Your task to perform on an android device: Open network settings Image 0: 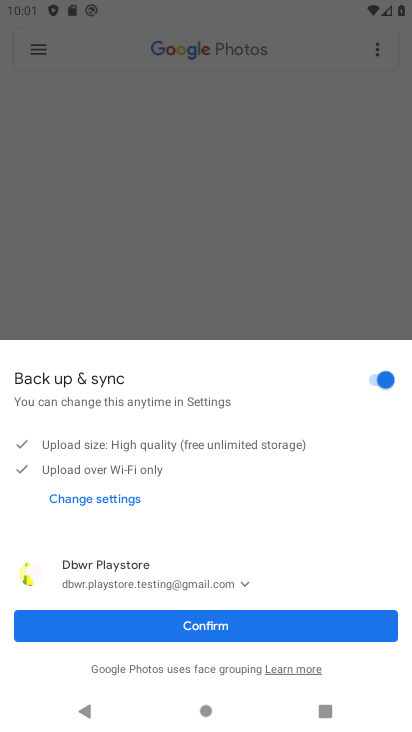
Step 0: press home button
Your task to perform on an android device: Open network settings Image 1: 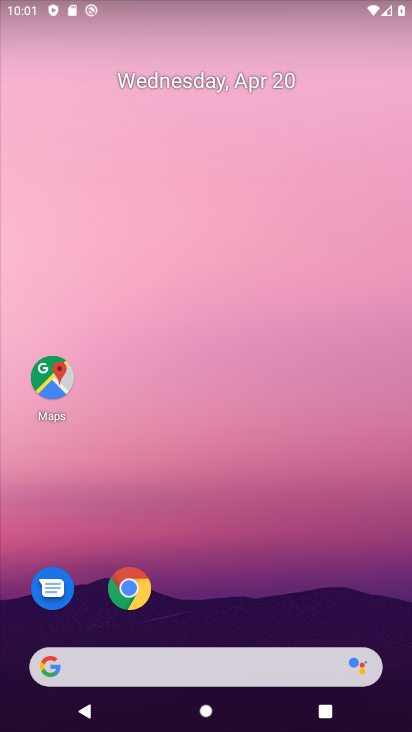
Step 1: drag from (224, 676) to (179, 408)
Your task to perform on an android device: Open network settings Image 2: 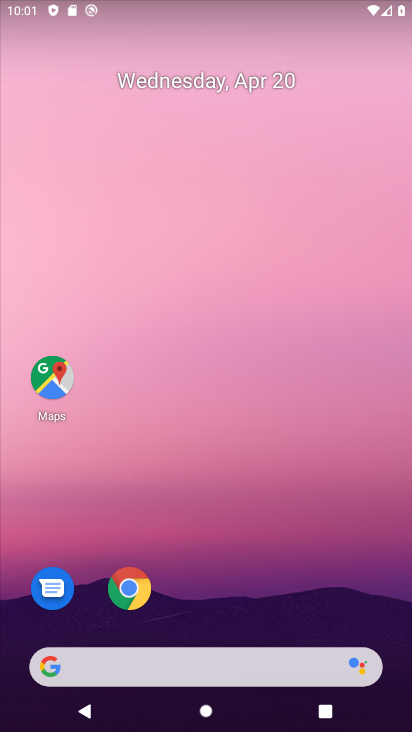
Step 2: drag from (222, 682) to (141, 399)
Your task to perform on an android device: Open network settings Image 3: 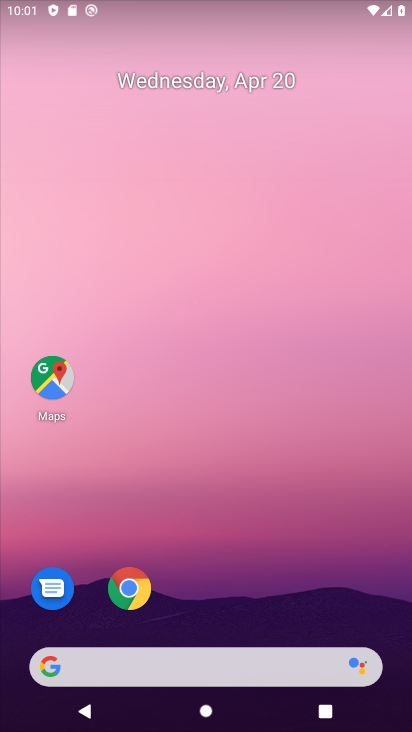
Step 3: drag from (216, 574) to (152, 327)
Your task to perform on an android device: Open network settings Image 4: 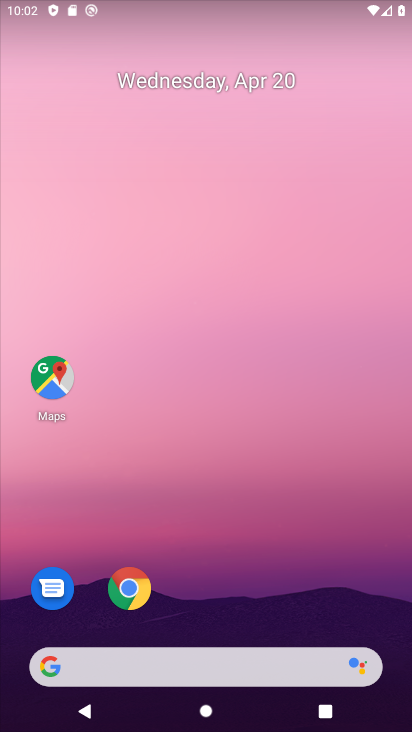
Step 4: drag from (294, 703) to (240, 211)
Your task to perform on an android device: Open network settings Image 5: 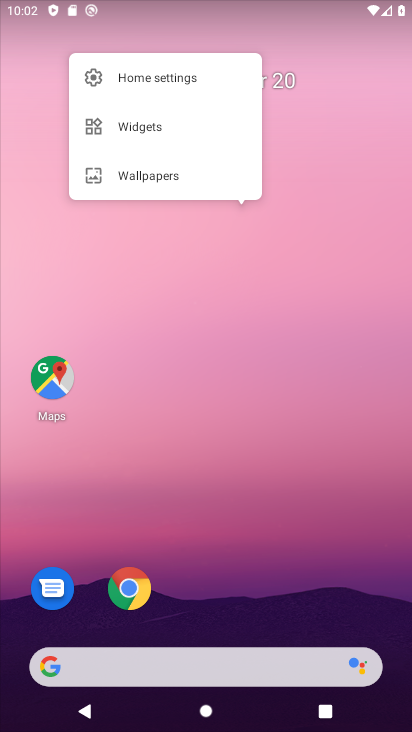
Step 5: drag from (275, 685) to (200, 170)
Your task to perform on an android device: Open network settings Image 6: 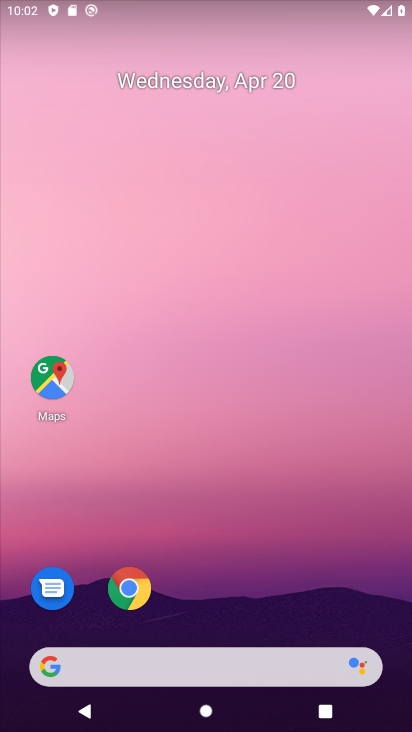
Step 6: drag from (238, 641) to (163, 49)
Your task to perform on an android device: Open network settings Image 7: 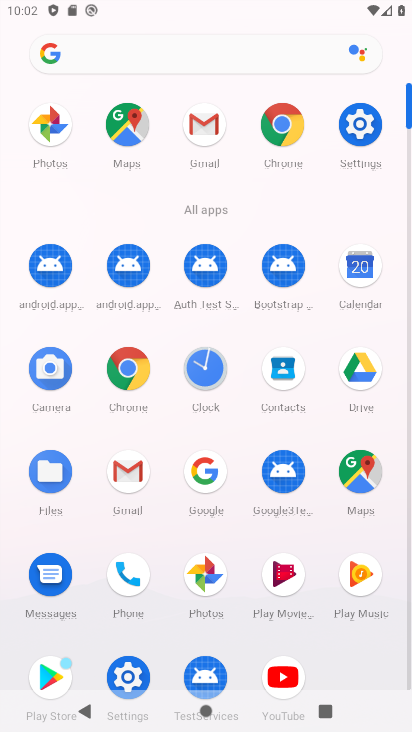
Step 7: click (129, 679)
Your task to perform on an android device: Open network settings Image 8: 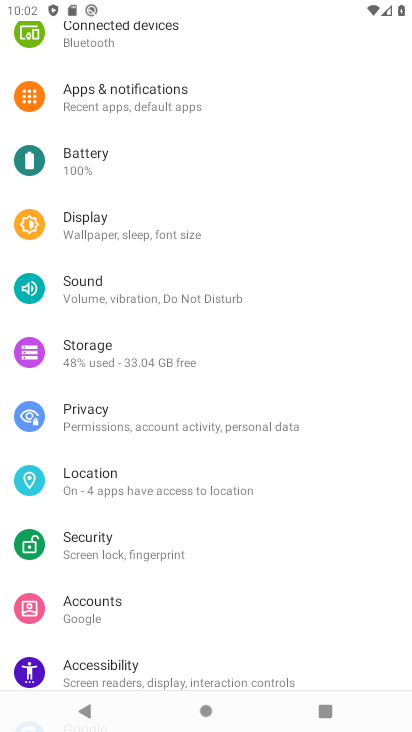
Step 8: drag from (146, 98) to (170, 368)
Your task to perform on an android device: Open network settings Image 9: 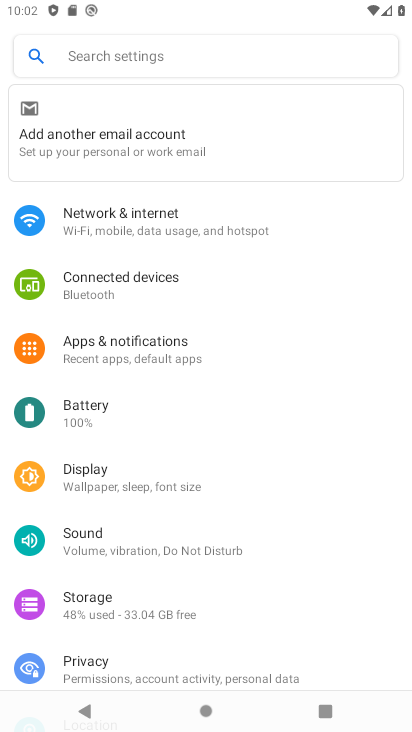
Step 9: click (159, 227)
Your task to perform on an android device: Open network settings Image 10: 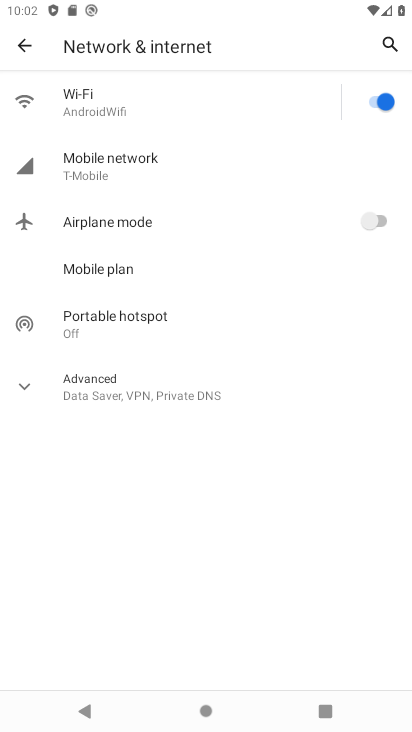
Step 10: click (148, 174)
Your task to perform on an android device: Open network settings Image 11: 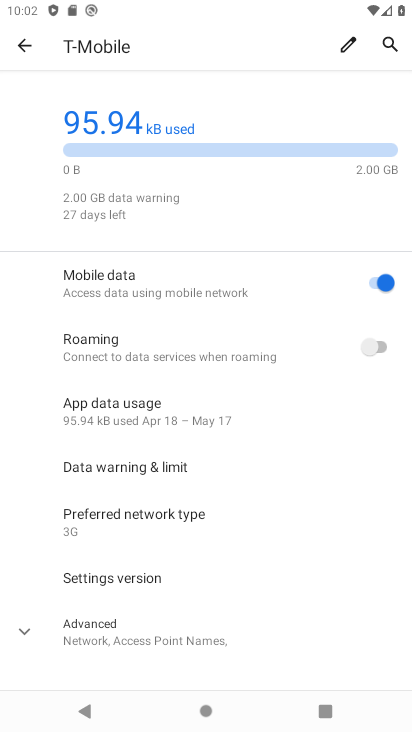
Step 11: task complete